Your task to perform on an android device: toggle data saver in the chrome app Image 0: 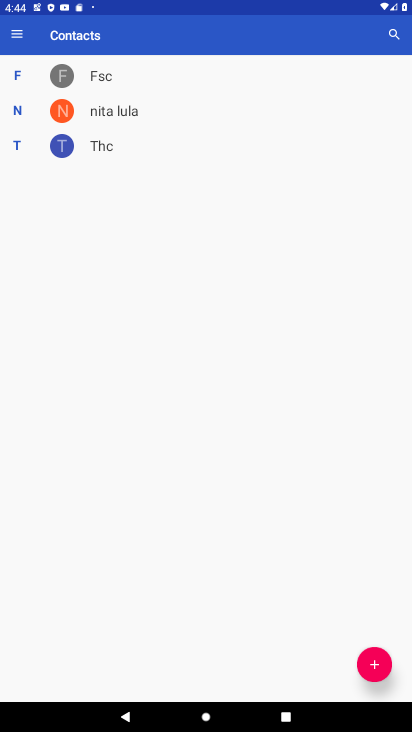
Step 0: press home button
Your task to perform on an android device: toggle data saver in the chrome app Image 1: 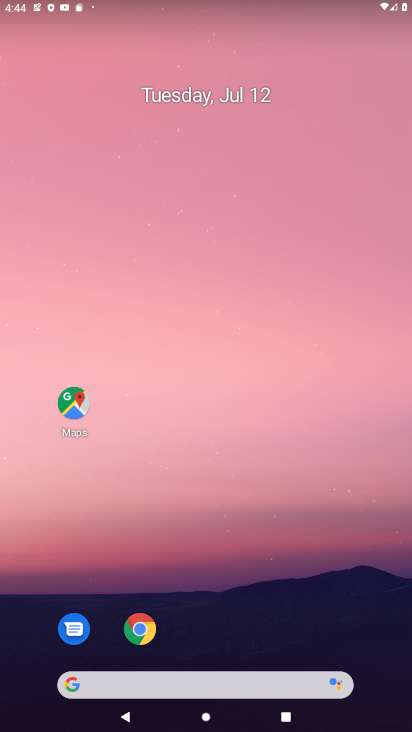
Step 1: drag from (242, 643) to (265, 152)
Your task to perform on an android device: toggle data saver in the chrome app Image 2: 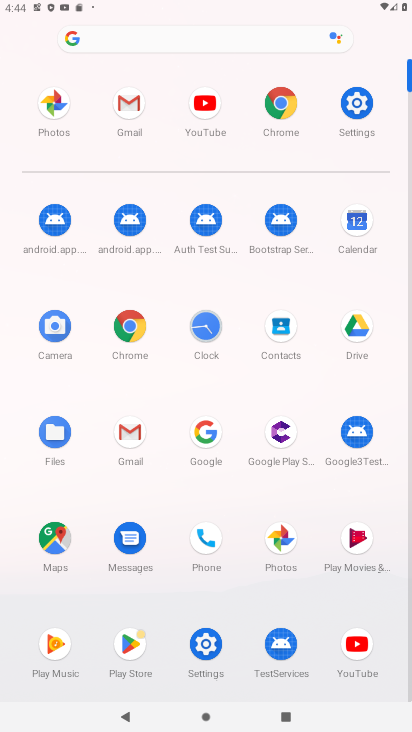
Step 2: click (275, 118)
Your task to perform on an android device: toggle data saver in the chrome app Image 3: 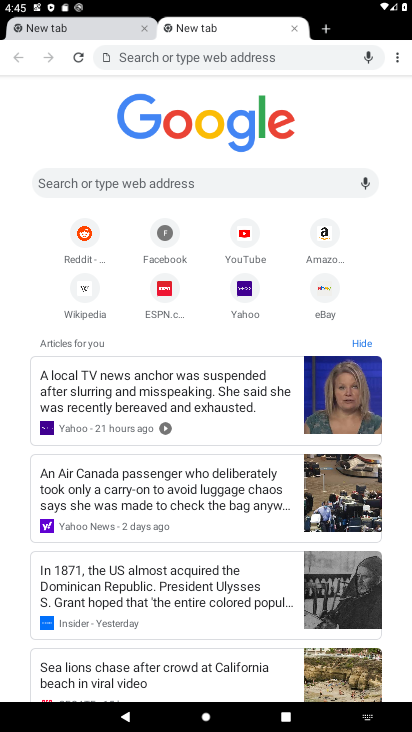
Step 3: drag from (396, 53) to (266, 273)
Your task to perform on an android device: toggle data saver in the chrome app Image 4: 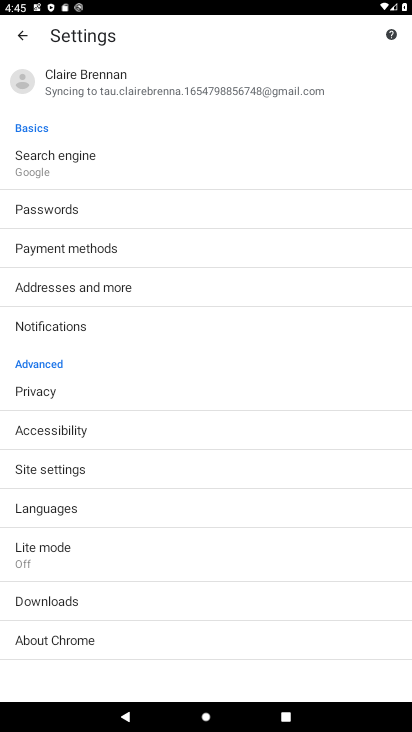
Step 4: click (35, 545)
Your task to perform on an android device: toggle data saver in the chrome app Image 5: 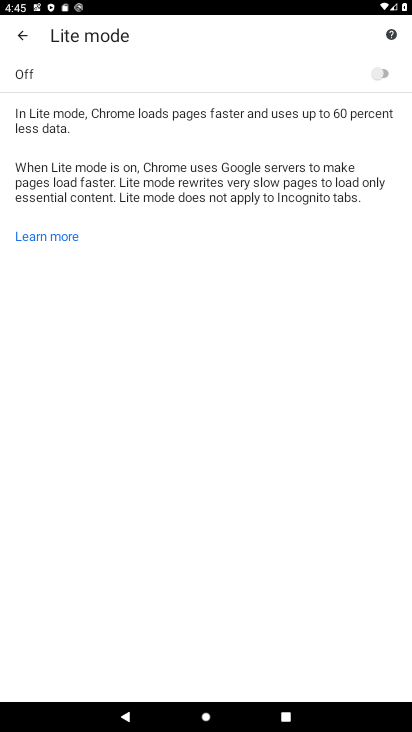
Step 5: click (377, 71)
Your task to perform on an android device: toggle data saver in the chrome app Image 6: 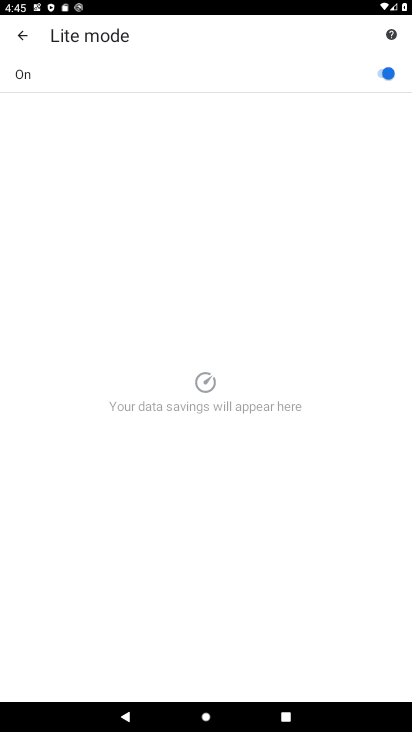
Step 6: task complete